Your task to perform on an android device: Show me some nice wallpapers for my laptop Image 0: 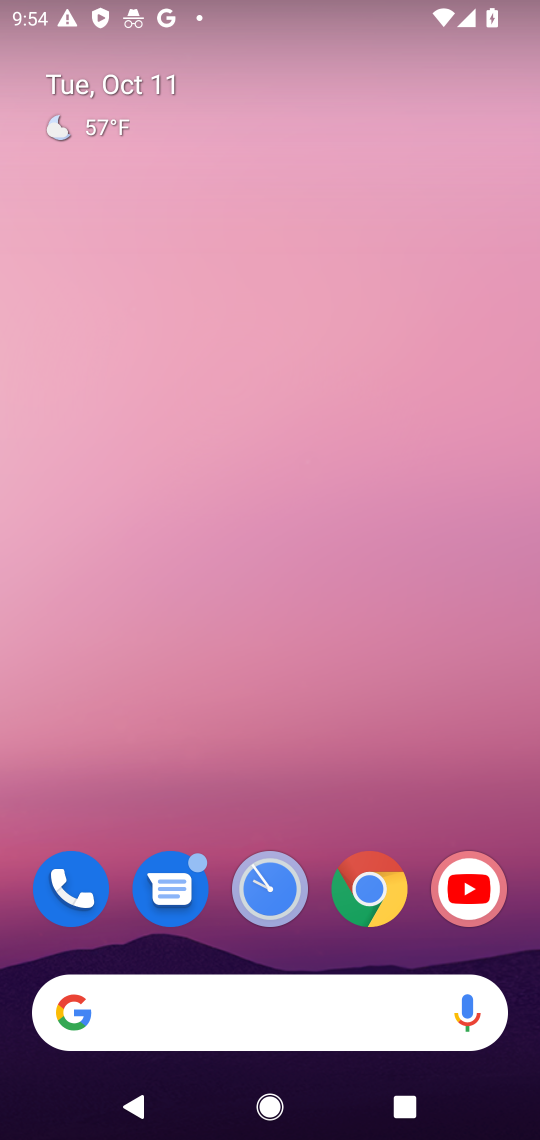
Step 0: click (231, 1017)
Your task to perform on an android device: Show me some nice wallpapers for my laptop Image 1: 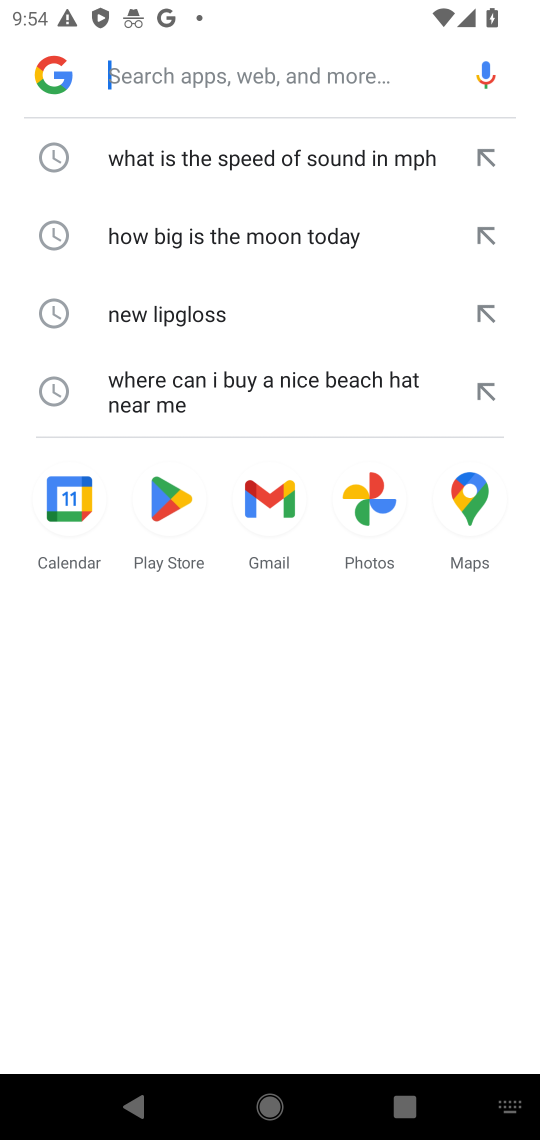
Step 1: click (170, 67)
Your task to perform on an android device: Show me some nice wallpapers for my laptop Image 2: 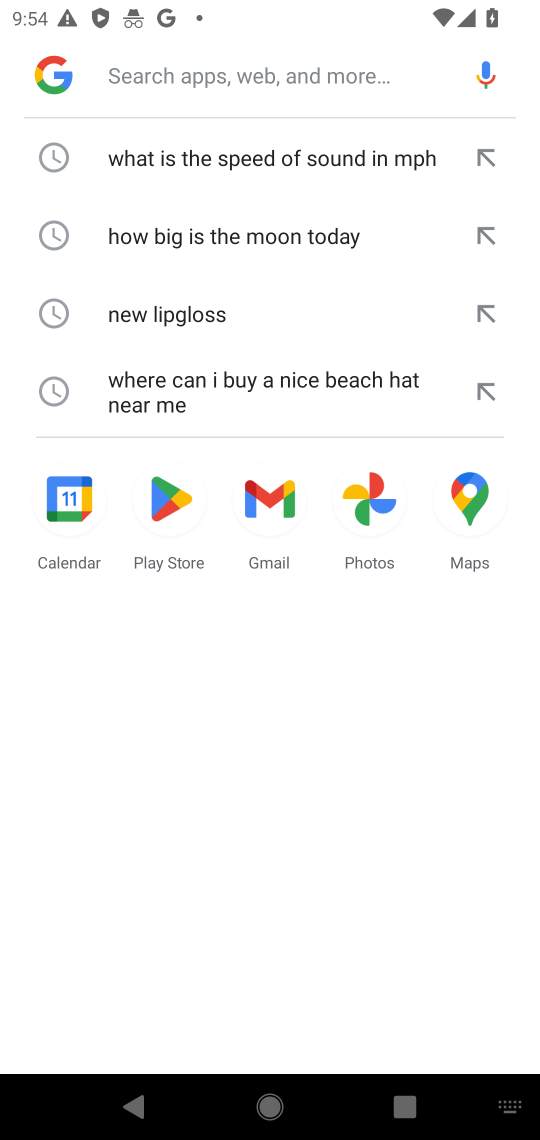
Step 2: type "some nice wallpapers for my laptop"
Your task to perform on an android device: Show me some nice wallpapers for my laptop Image 3: 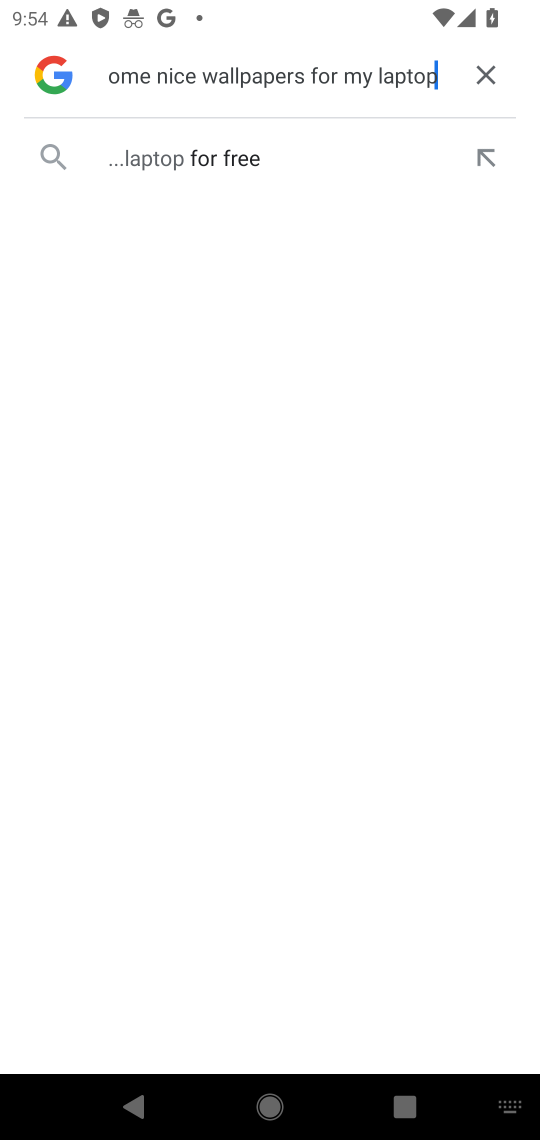
Step 3: click (166, 142)
Your task to perform on an android device: Show me some nice wallpapers for my laptop Image 4: 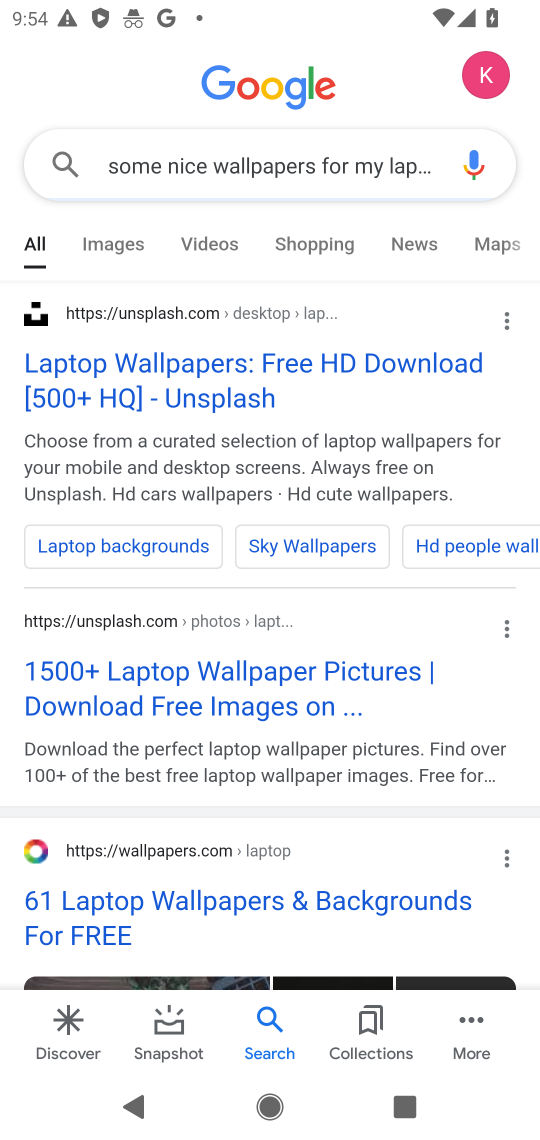
Step 4: task complete